Your task to perform on an android device: open app "Google Duo" Image 0: 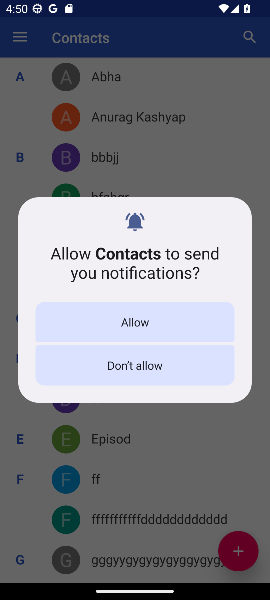
Step 0: press back button
Your task to perform on an android device: open app "Google Duo" Image 1: 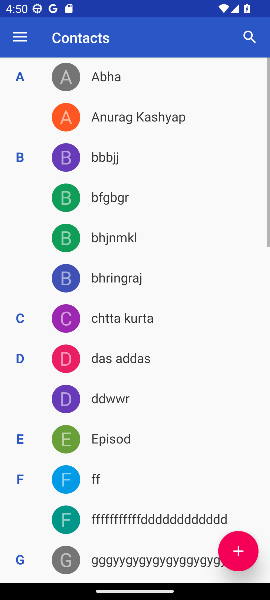
Step 1: press back button
Your task to perform on an android device: open app "Google Duo" Image 2: 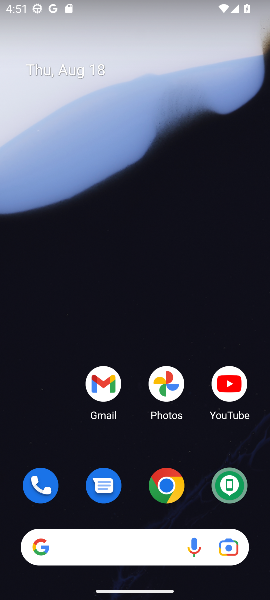
Step 2: drag from (81, 306) to (117, 69)
Your task to perform on an android device: open app "Google Duo" Image 3: 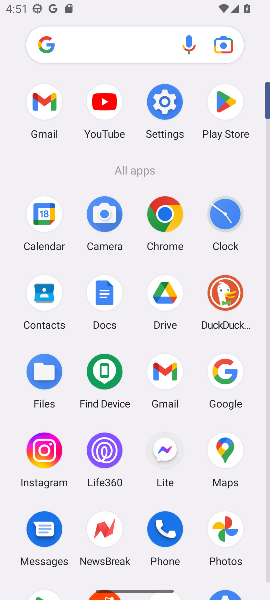
Step 3: click (229, 105)
Your task to perform on an android device: open app "Google Duo" Image 4: 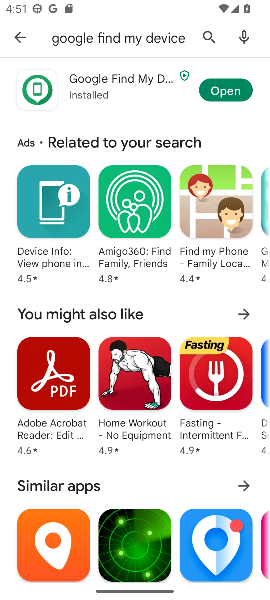
Step 4: click (200, 36)
Your task to perform on an android device: open app "Google Duo" Image 5: 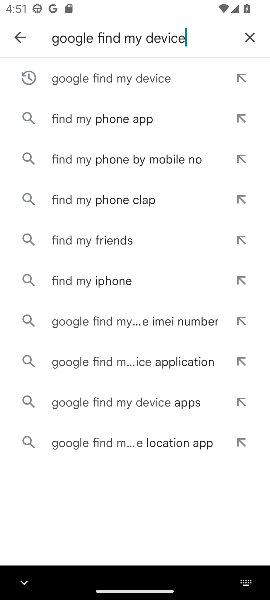
Step 5: click (249, 37)
Your task to perform on an android device: open app "Google Duo" Image 6: 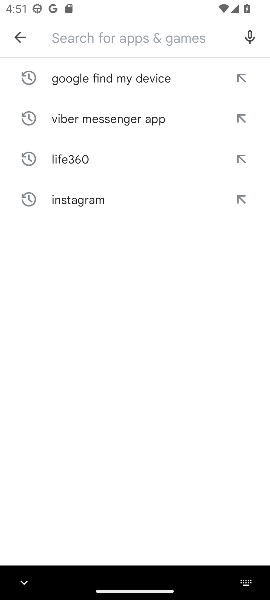
Step 6: click (91, 35)
Your task to perform on an android device: open app "Google Duo" Image 7: 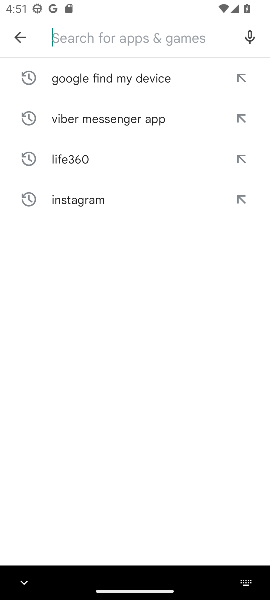
Step 7: type "goggle duo"
Your task to perform on an android device: open app "Google Duo" Image 8: 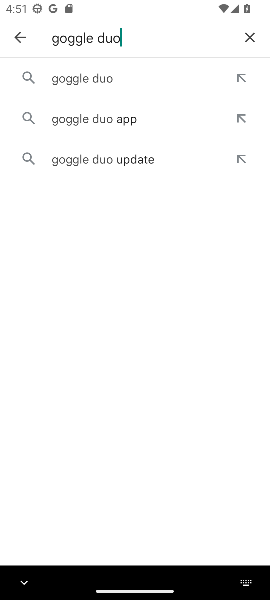
Step 8: click (106, 74)
Your task to perform on an android device: open app "Google Duo" Image 9: 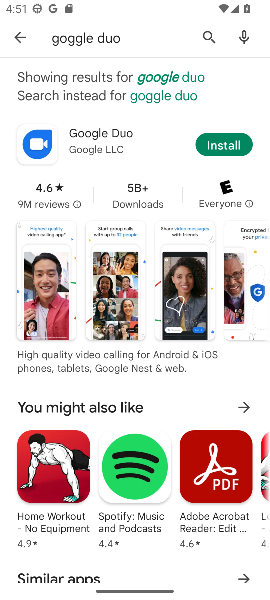
Step 9: task complete